Your task to perform on an android device: What time is it in London? Image 0: 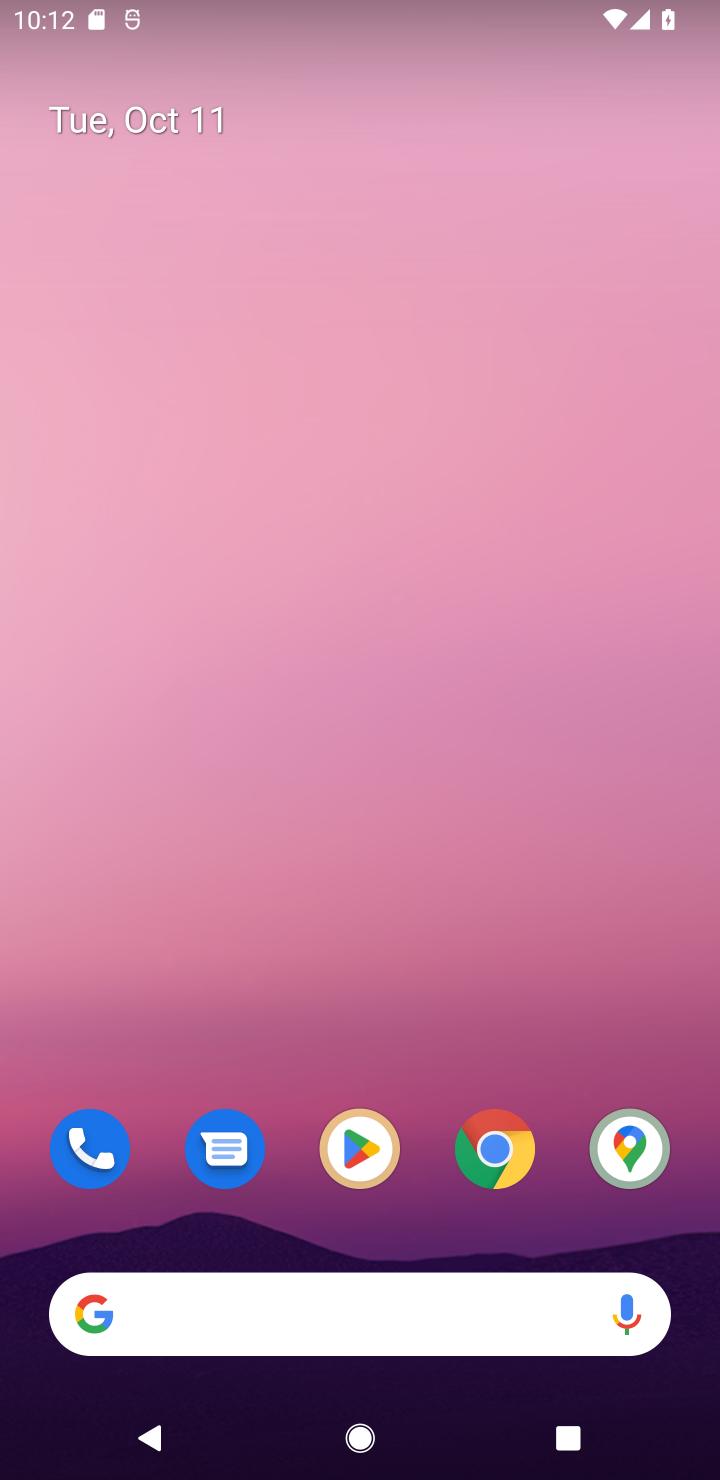
Step 0: click (328, 1314)
Your task to perform on an android device: What time is it in London? Image 1: 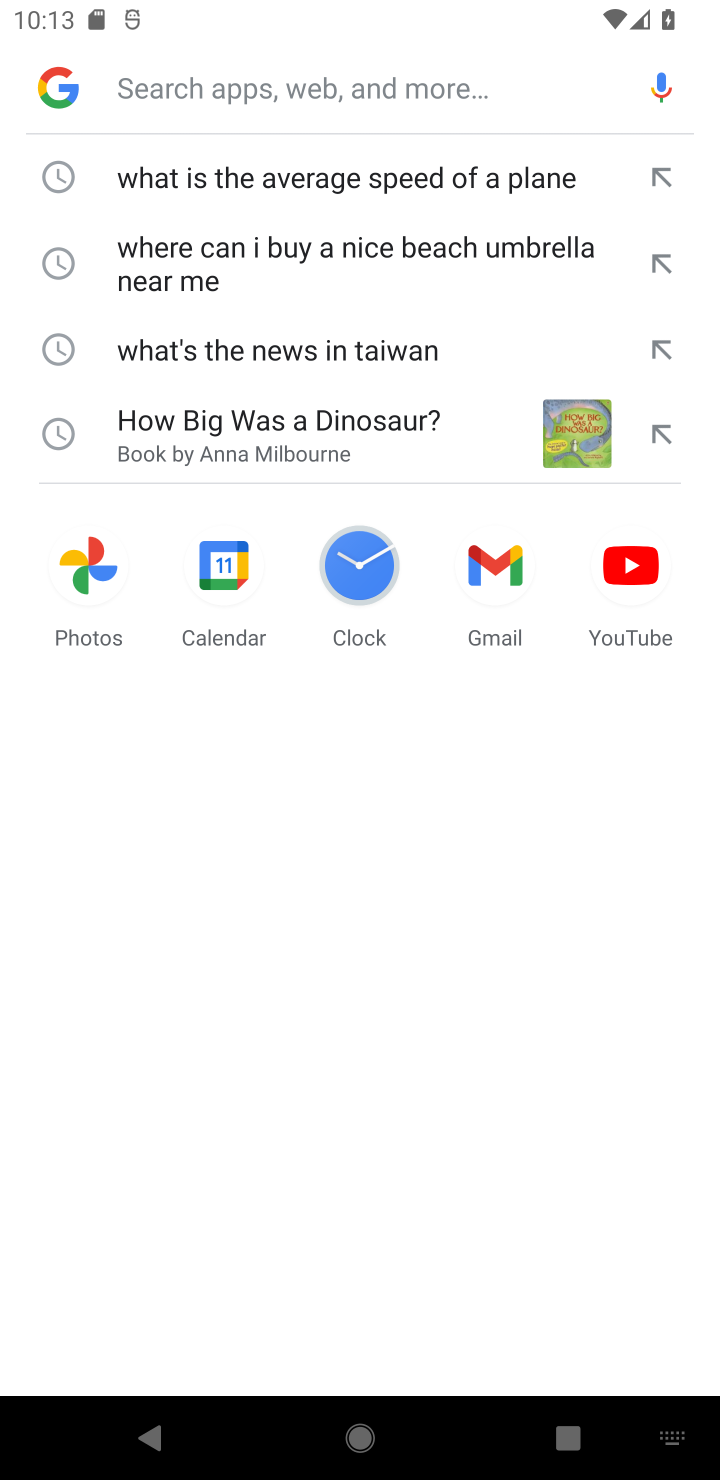
Step 1: type "What time is it in London?"
Your task to perform on an android device: What time is it in London? Image 2: 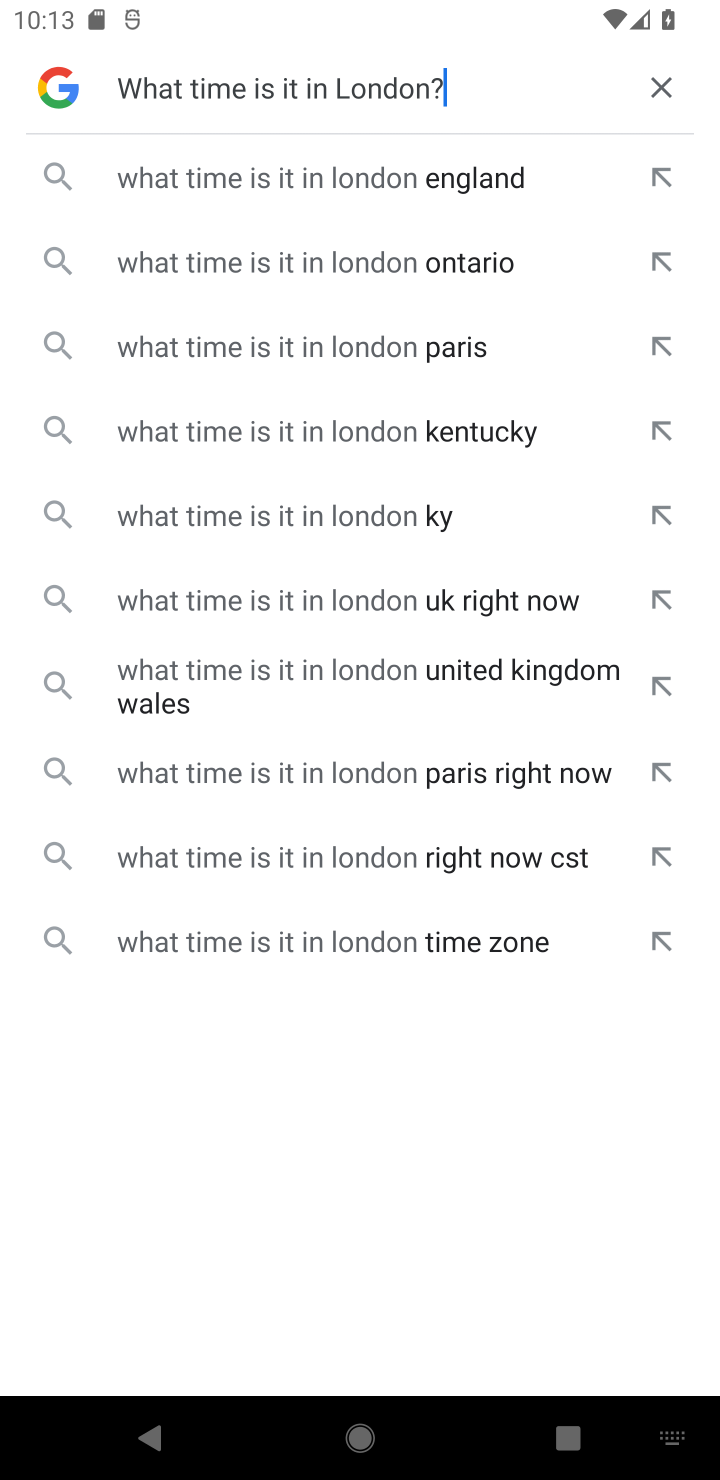
Step 2: click (356, 186)
Your task to perform on an android device: What time is it in London? Image 3: 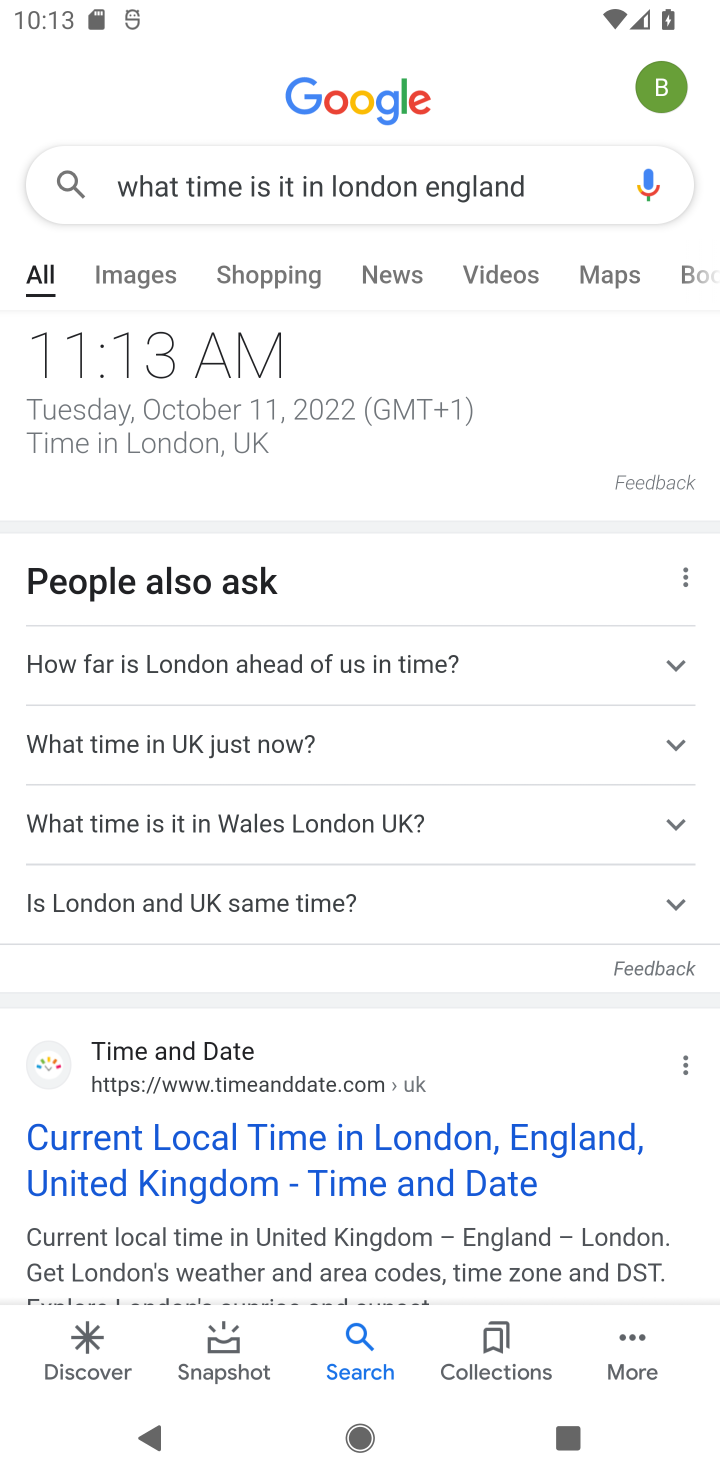
Step 3: task complete